Your task to perform on an android device: Open accessibility settings Image 0: 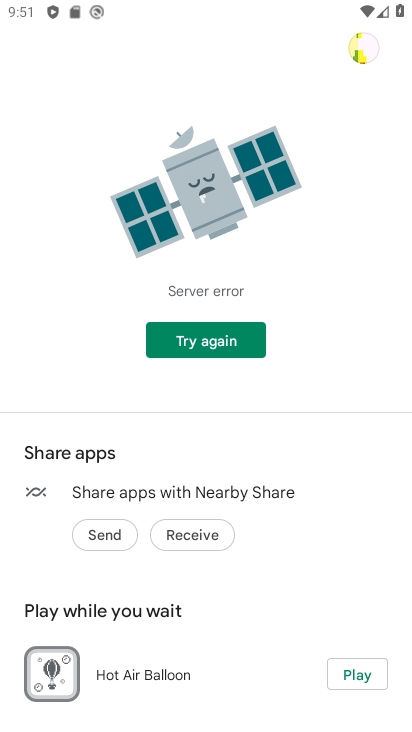
Step 0: press home button
Your task to perform on an android device: Open accessibility settings Image 1: 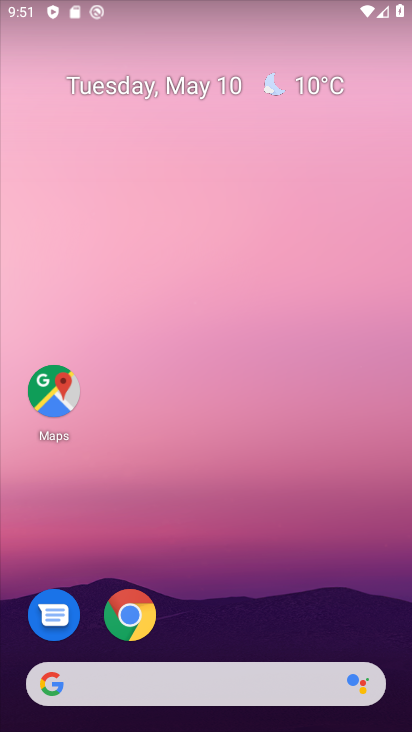
Step 1: drag from (370, 616) to (274, 6)
Your task to perform on an android device: Open accessibility settings Image 2: 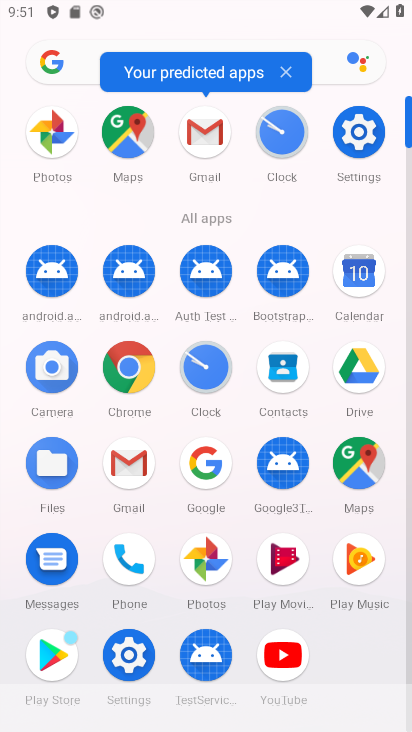
Step 2: click (408, 670)
Your task to perform on an android device: Open accessibility settings Image 3: 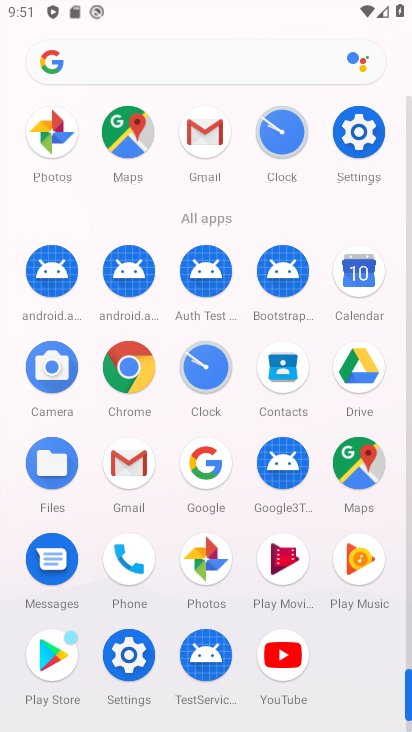
Step 3: click (128, 654)
Your task to perform on an android device: Open accessibility settings Image 4: 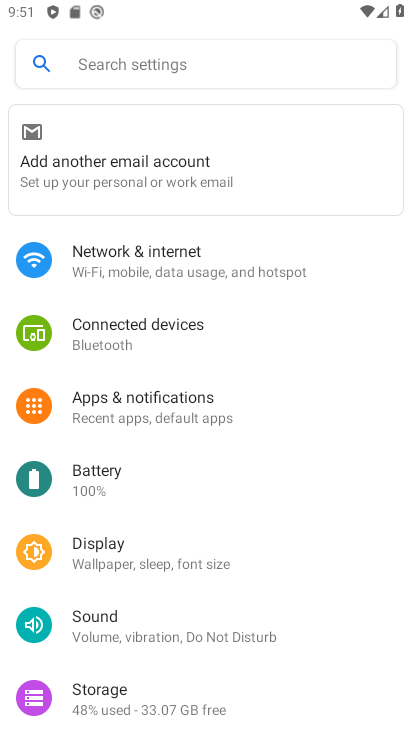
Step 4: drag from (314, 628) to (327, 405)
Your task to perform on an android device: Open accessibility settings Image 5: 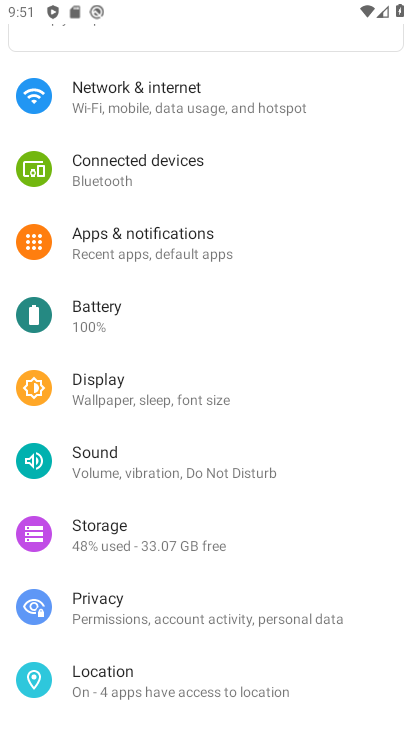
Step 5: drag from (346, 655) to (267, 211)
Your task to perform on an android device: Open accessibility settings Image 6: 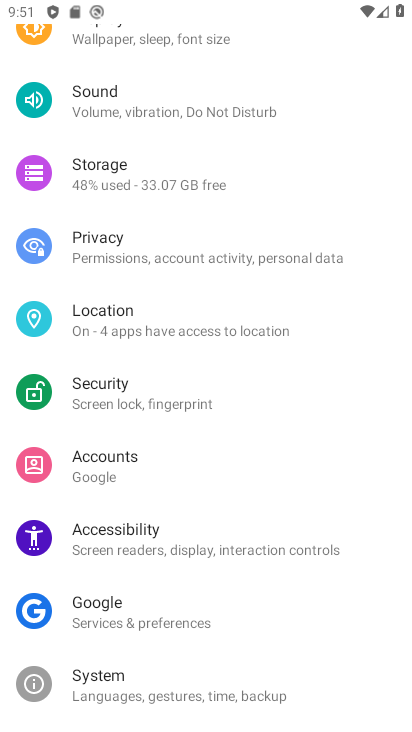
Step 6: click (123, 541)
Your task to perform on an android device: Open accessibility settings Image 7: 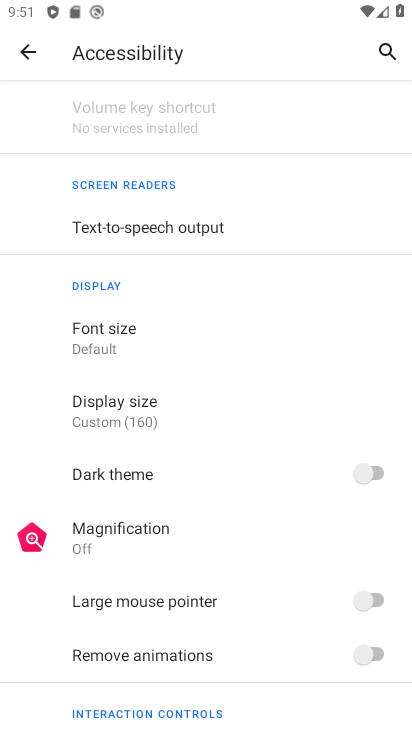
Step 7: task complete